Your task to perform on an android device: Set the phone to "Do not disturb". Image 0: 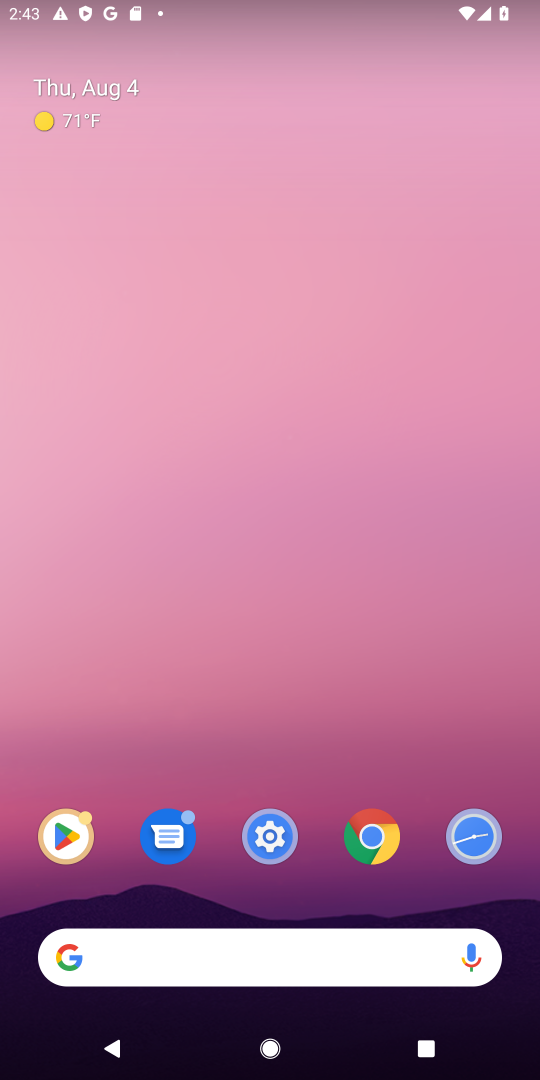
Step 0: click (476, 226)
Your task to perform on an android device: Set the phone to "Do not disturb". Image 1: 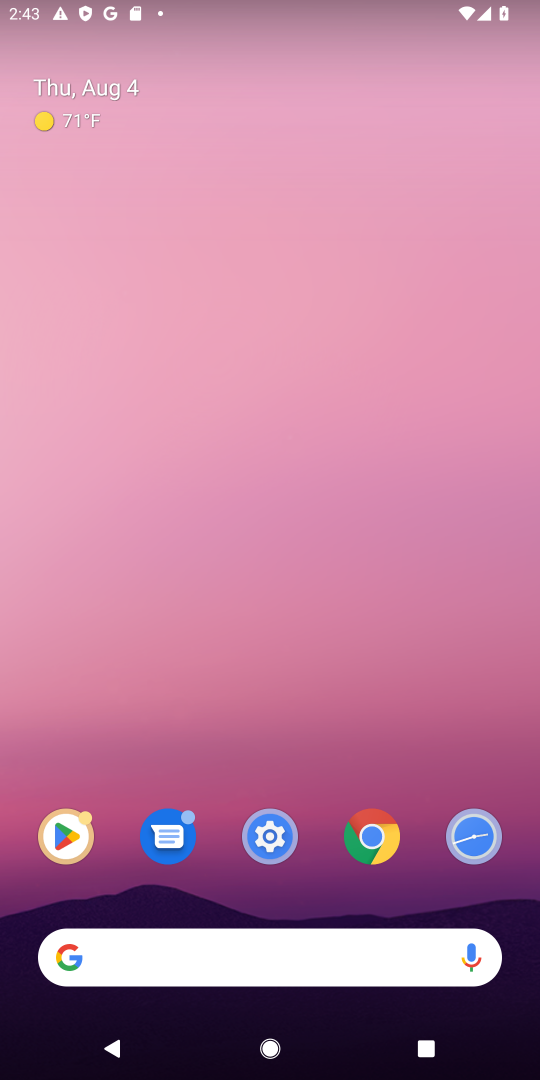
Step 1: click (266, 833)
Your task to perform on an android device: Set the phone to "Do not disturb". Image 2: 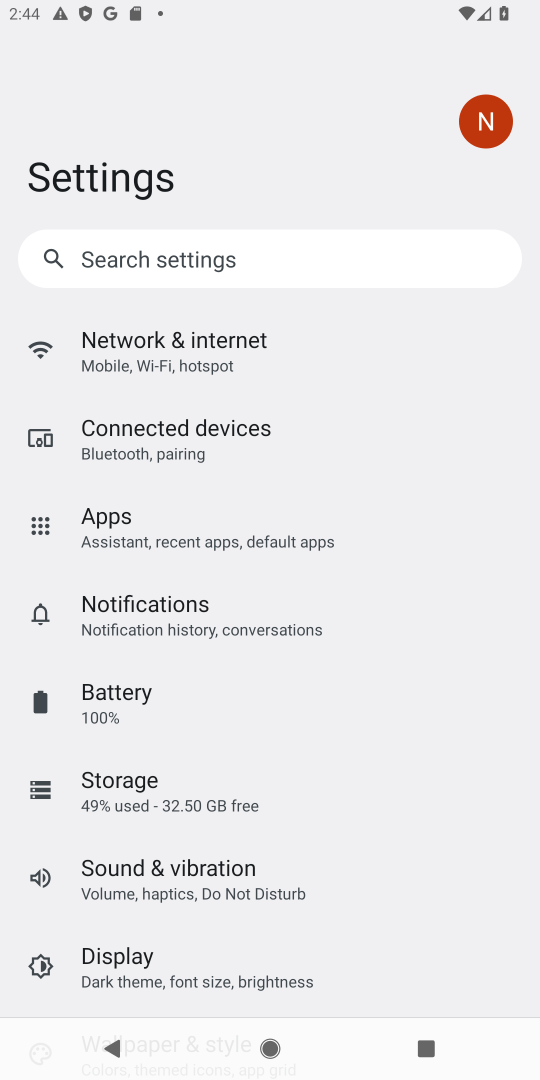
Step 2: drag from (353, 766) to (320, 409)
Your task to perform on an android device: Set the phone to "Do not disturb". Image 3: 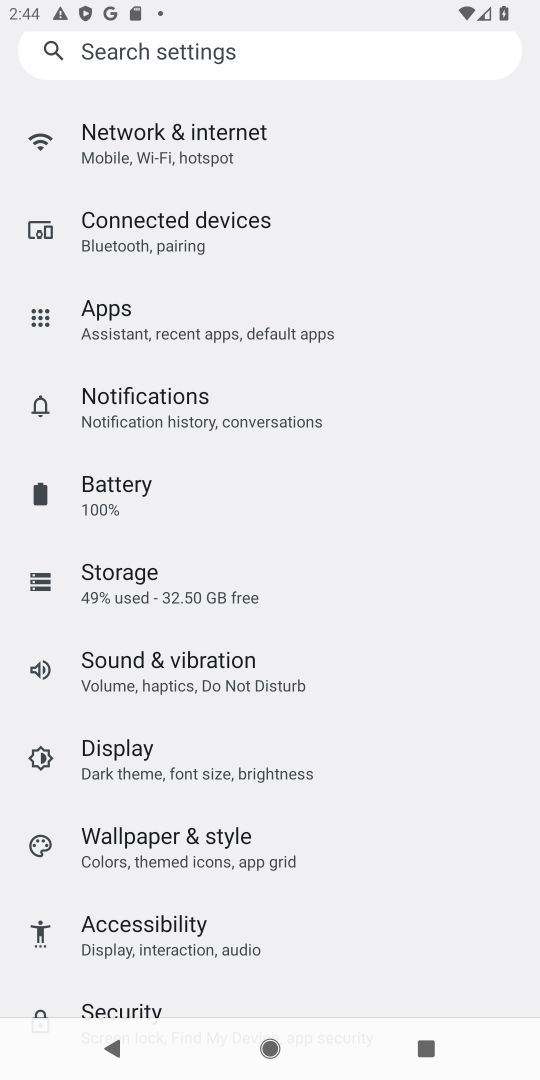
Step 3: click (299, 663)
Your task to perform on an android device: Set the phone to "Do not disturb". Image 4: 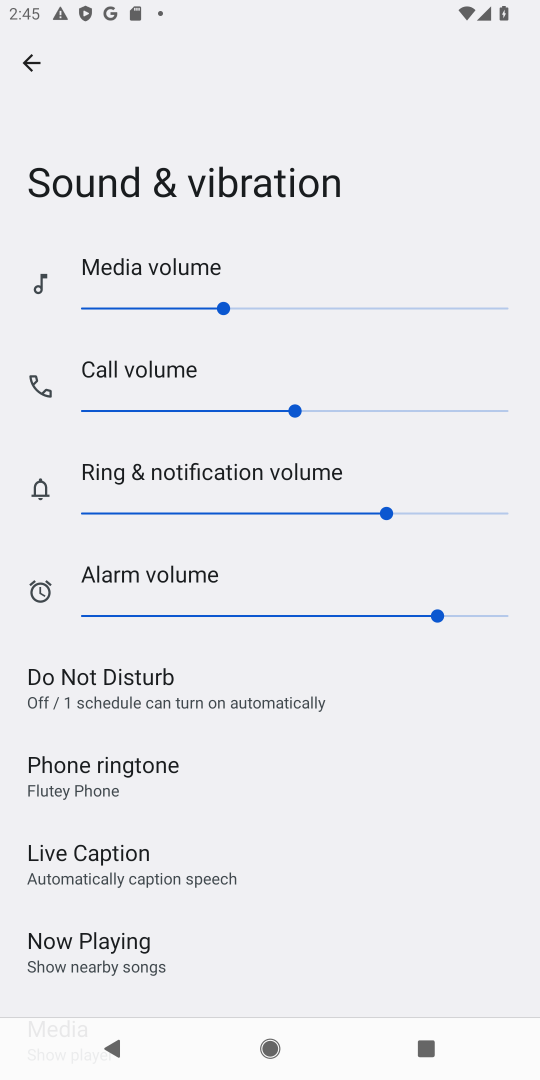
Step 4: click (201, 701)
Your task to perform on an android device: Set the phone to "Do not disturb". Image 5: 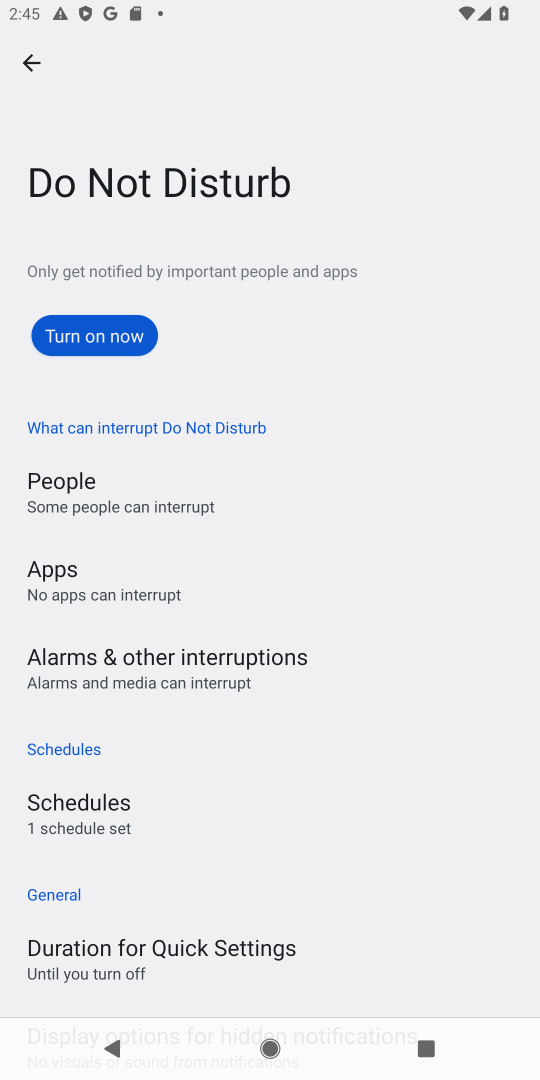
Step 5: click (128, 330)
Your task to perform on an android device: Set the phone to "Do not disturb". Image 6: 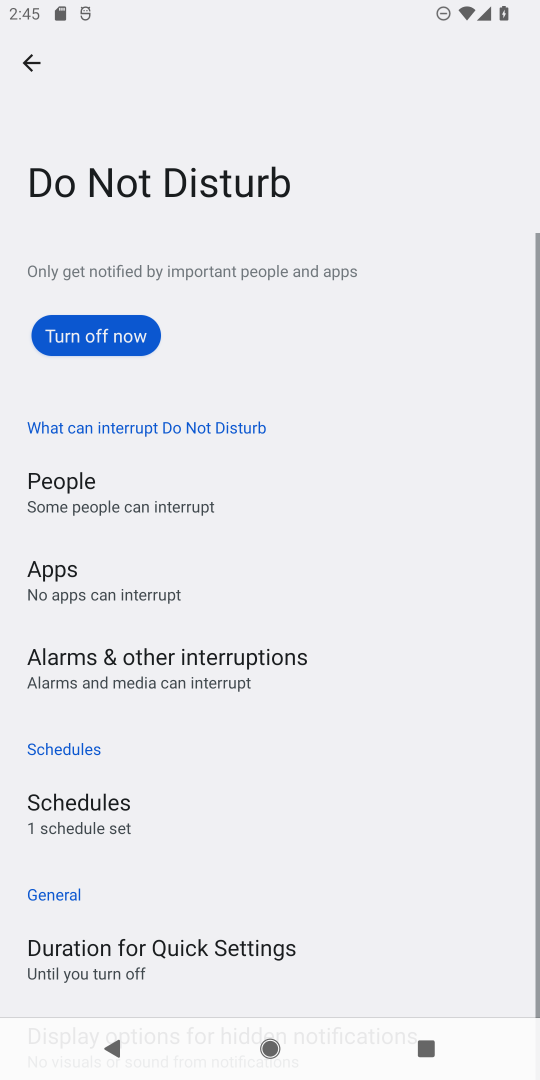
Step 6: task complete